Your task to perform on an android device: open app "ColorNote Notepad Notes" (install if not already installed) and go to login screen Image 0: 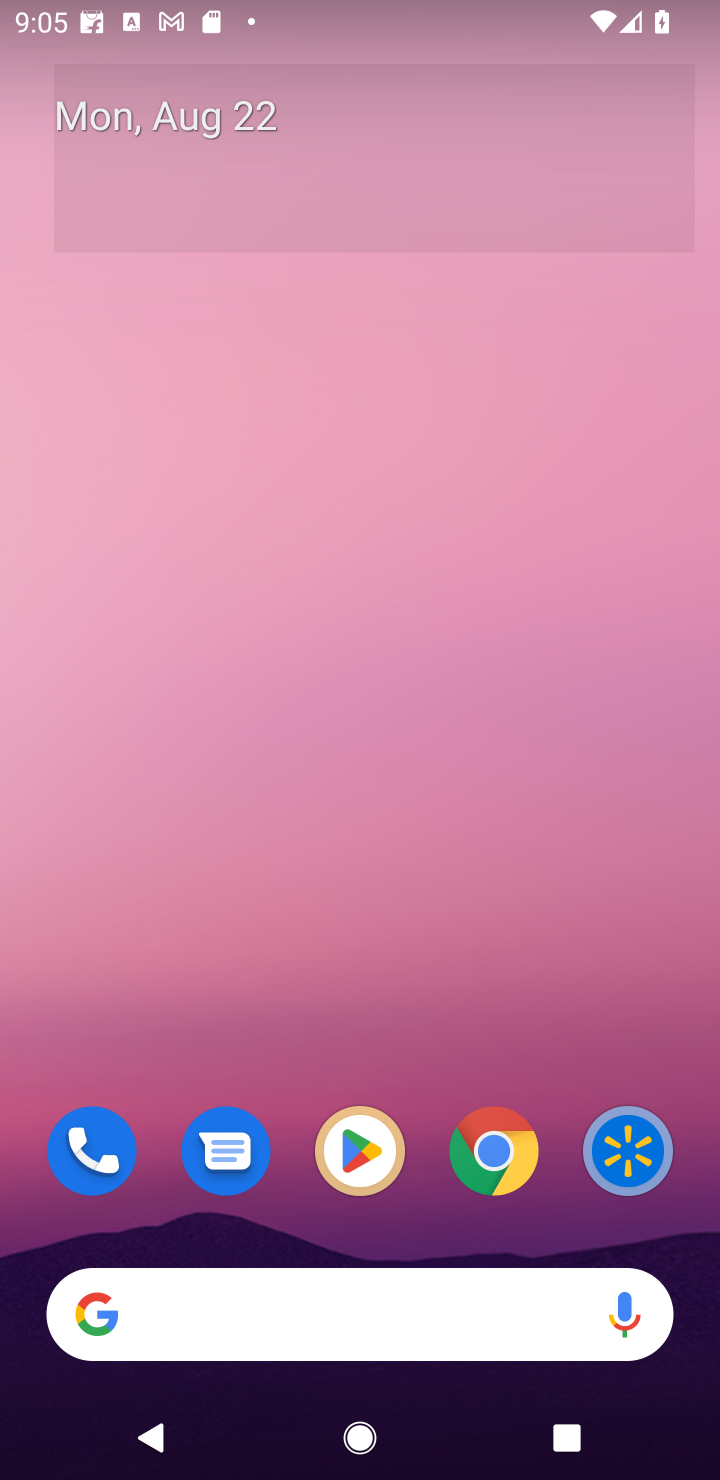
Step 0: click (377, 1150)
Your task to perform on an android device: open app "ColorNote Notepad Notes" (install if not already installed) and go to login screen Image 1: 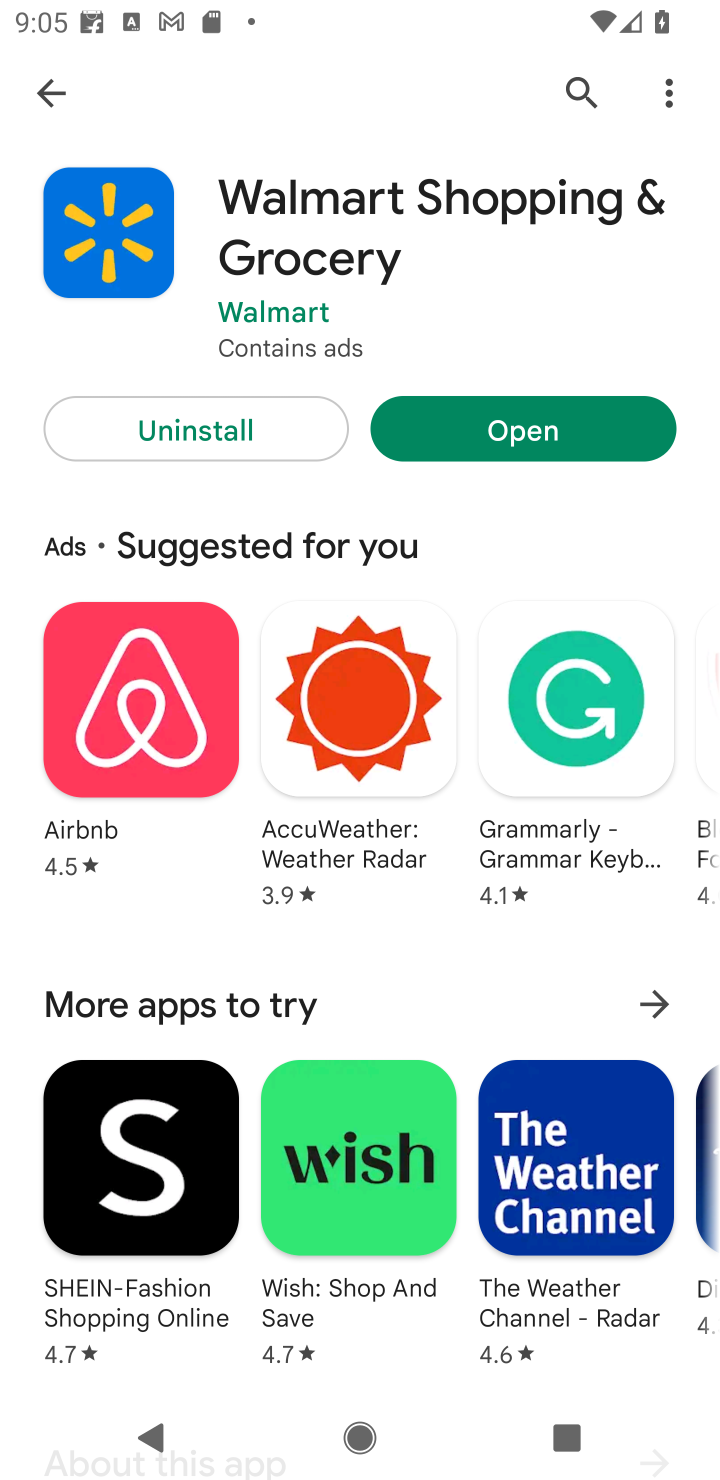
Step 1: click (575, 87)
Your task to perform on an android device: open app "ColorNote Notepad Notes" (install if not already installed) and go to login screen Image 2: 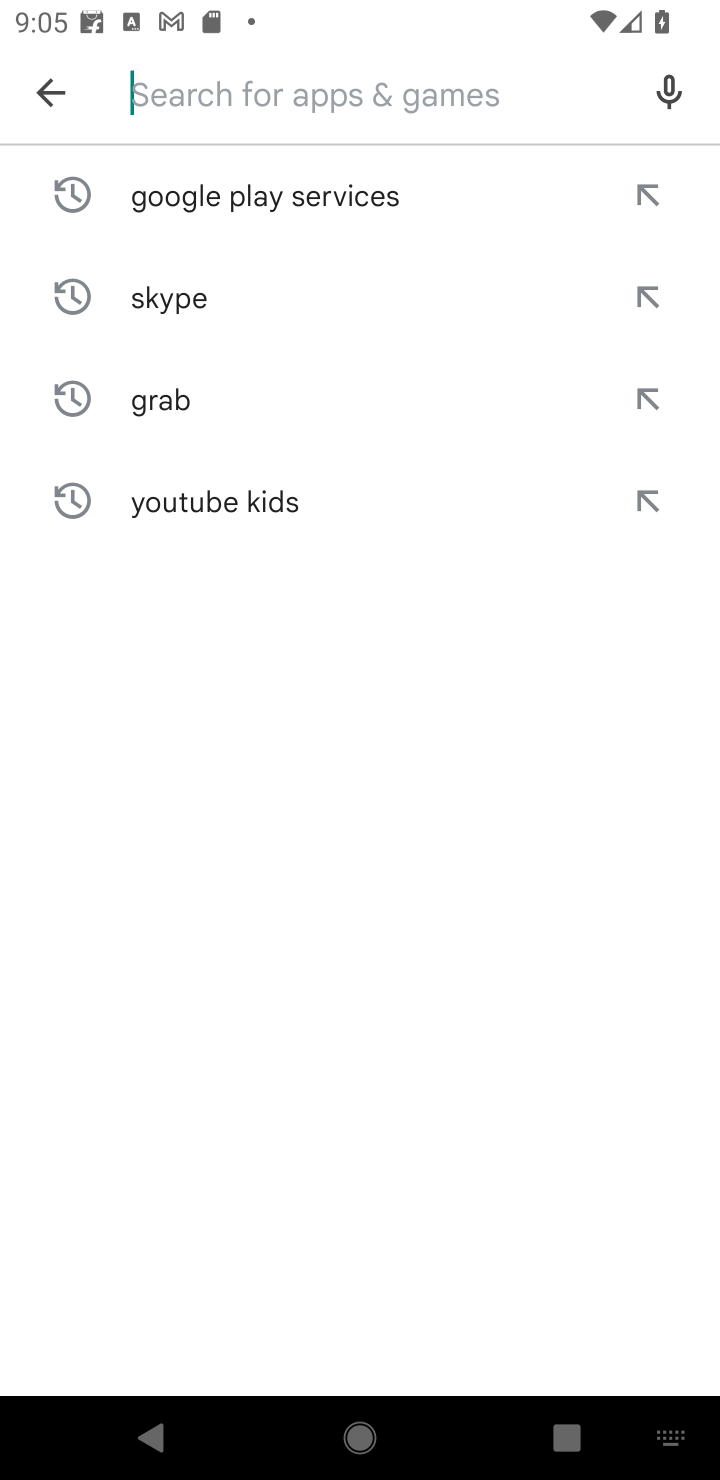
Step 2: type "ColorNote Notepad Notes"
Your task to perform on an android device: open app "ColorNote Notepad Notes" (install if not already installed) and go to login screen Image 3: 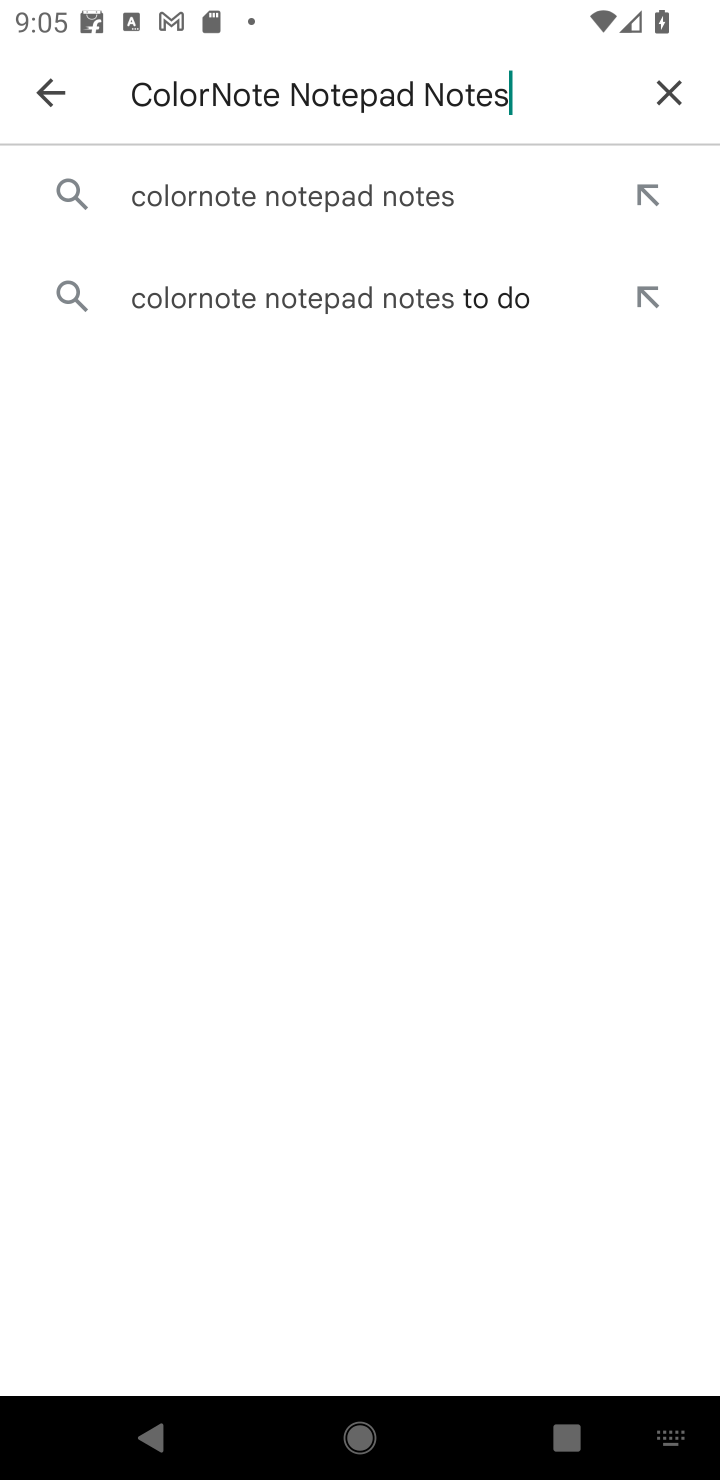
Step 3: click (384, 194)
Your task to perform on an android device: open app "ColorNote Notepad Notes" (install if not already installed) and go to login screen Image 4: 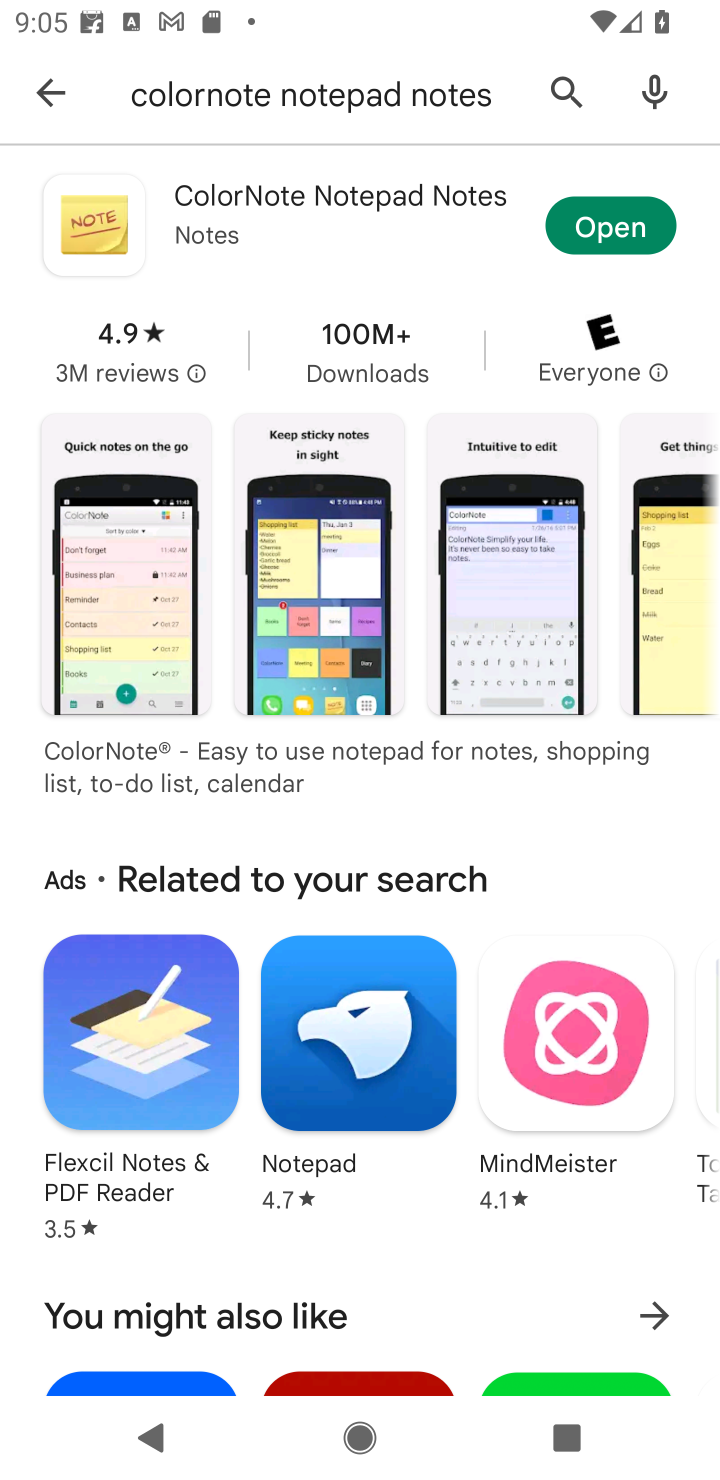
Step 4: click (634, 234)
Your task to perform on an android device: open app "ColorNote Notepad Notes" (install if not already installed) and go to login screen Image 5: 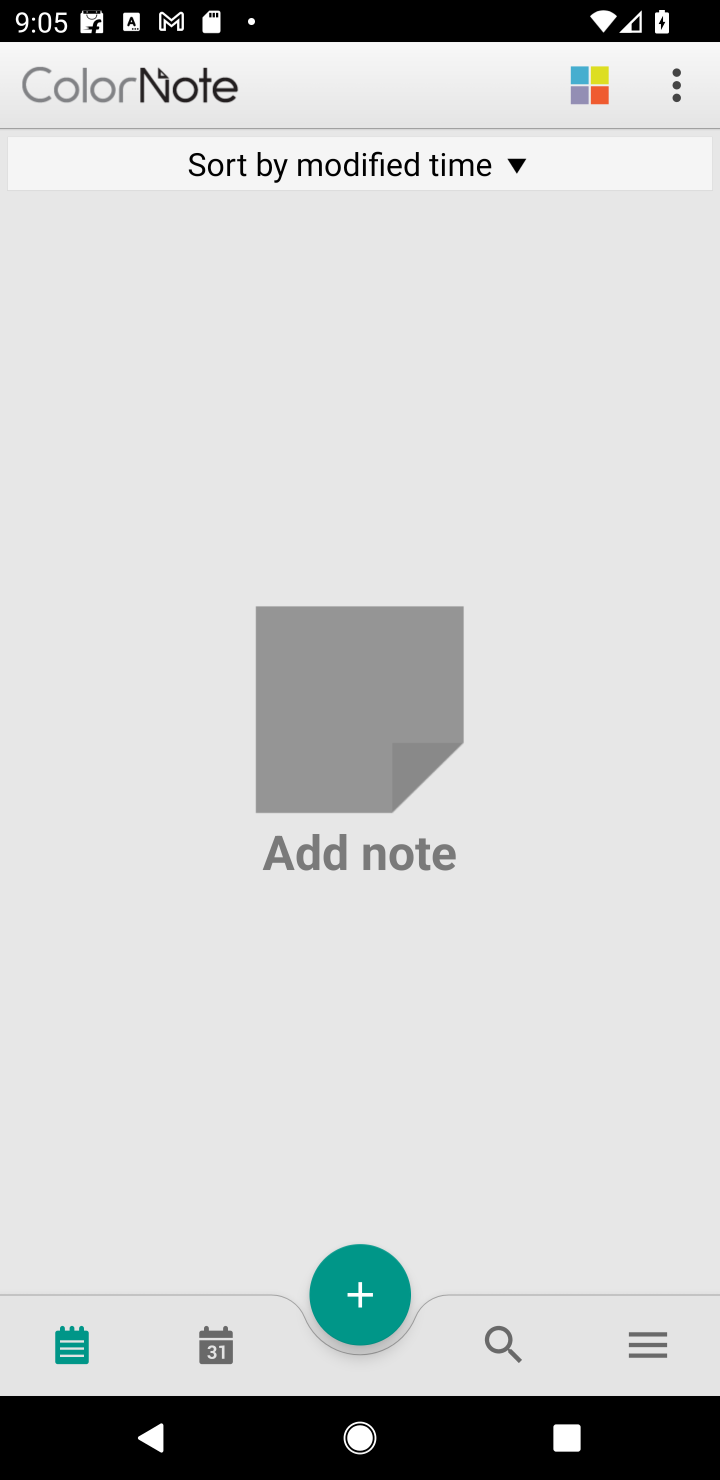
Step 5: task complete